Your task to perform on an android device: Search for the best rated headphones on Amazon. Image 0: 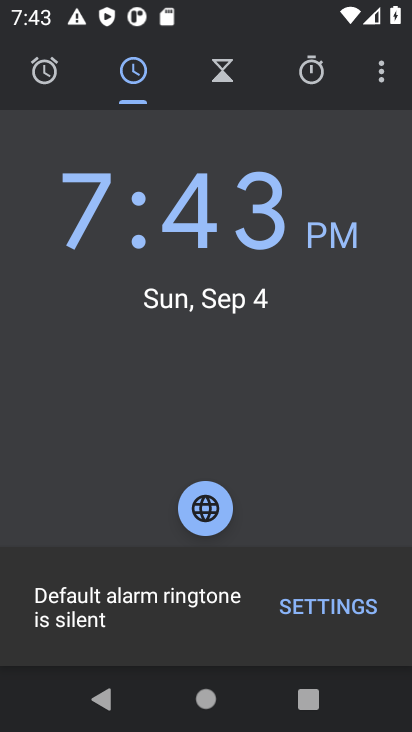
Step 0: press home button
Your task to perform on an android device: Search for the best rated headphones on Amazon. Image 1: 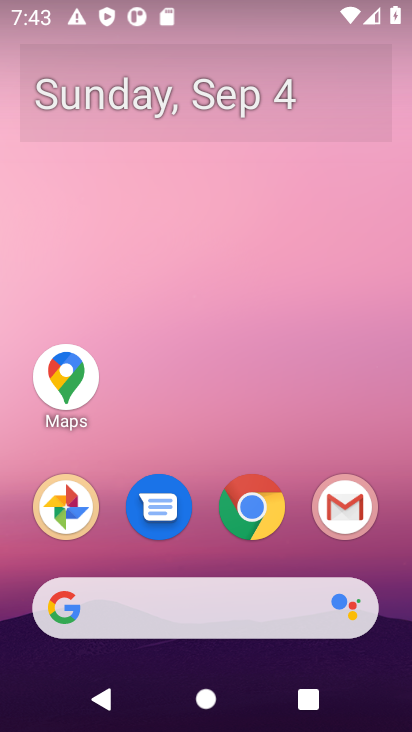
Step 1: click (273, 503)
Your task to perform on an android device: Search for the best rated headphones on Amazon. Image 2: 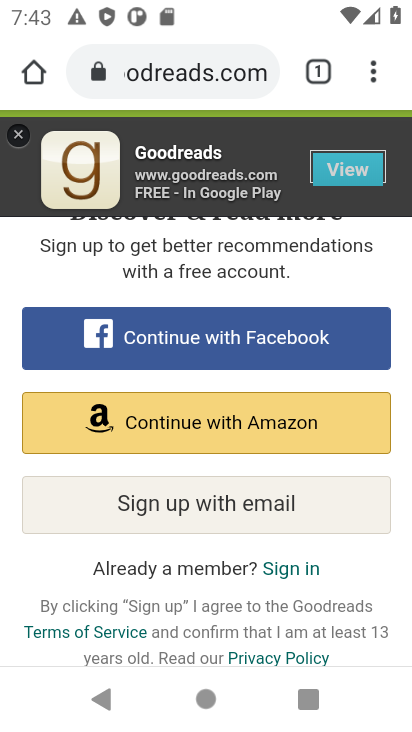
Step 2: click (196, 66)
Your task to perform on an android device: Search for the best rated headphones on Amazon. Image 3: 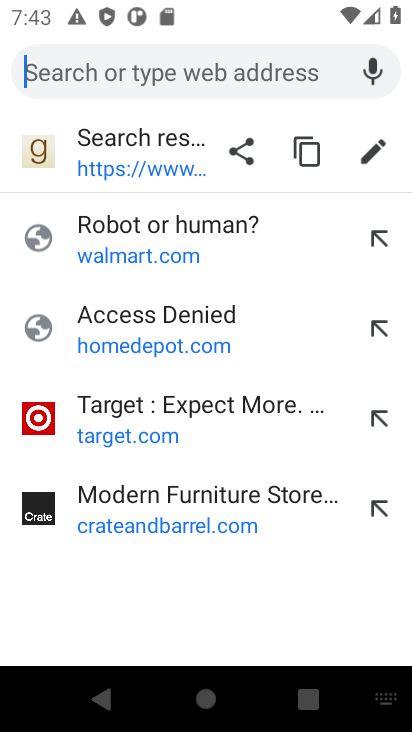
Step 3: type "amazon"
Your task to perform on an android device: Search for the best rated headphones on Amazon. Image 4: 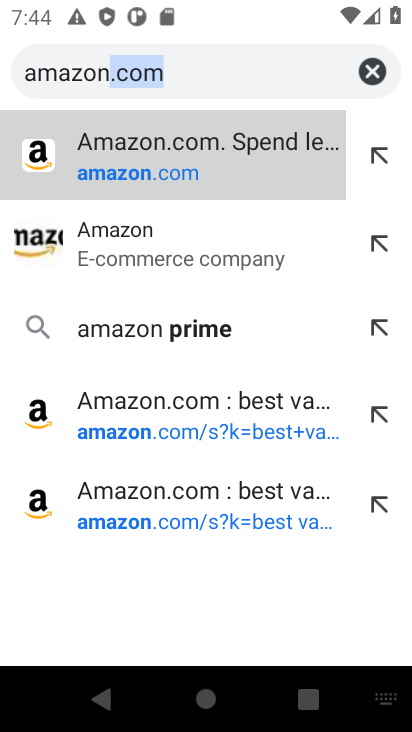
Step 4: click (169, 149)
Your task to perform on an android device: Search for the best rated headphones on Amazon. Image 5: 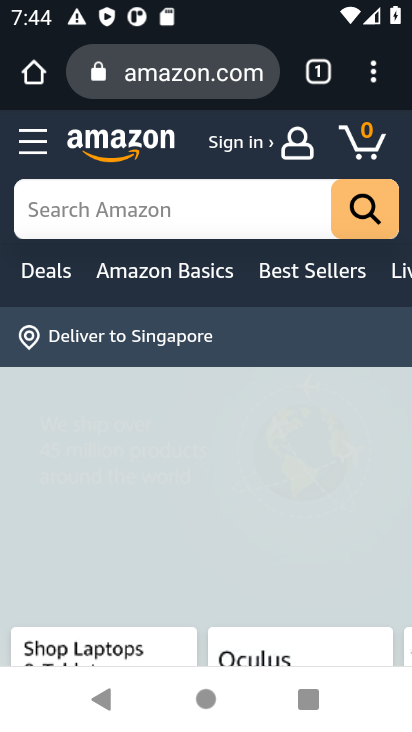
Step 5: click (203, 206)
Your task to perform on an android device: Search for the best rated headphones on Amazon. Image 6: 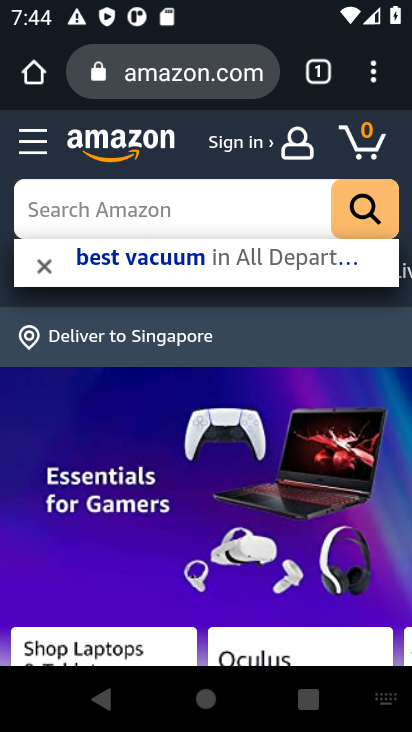
Step 6: type "best rated headphones"
Your task to perform on an android device: Search for the best rated headphones on Amazon. Image 7: 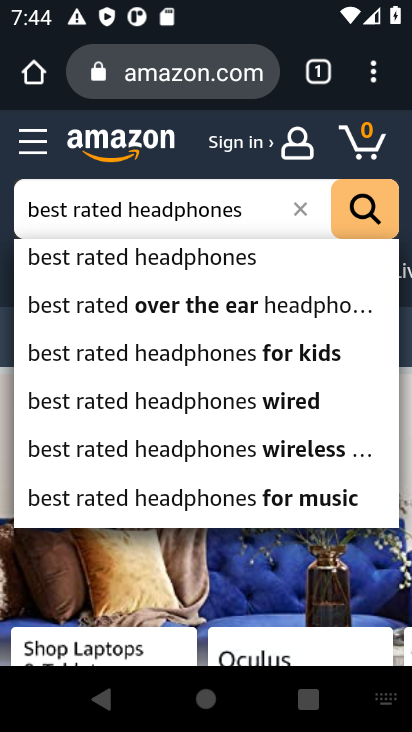
Step 7: click (215, 255)
Your task to perform on an android device: Search for the best rated headphones on Amazon. Image 8: 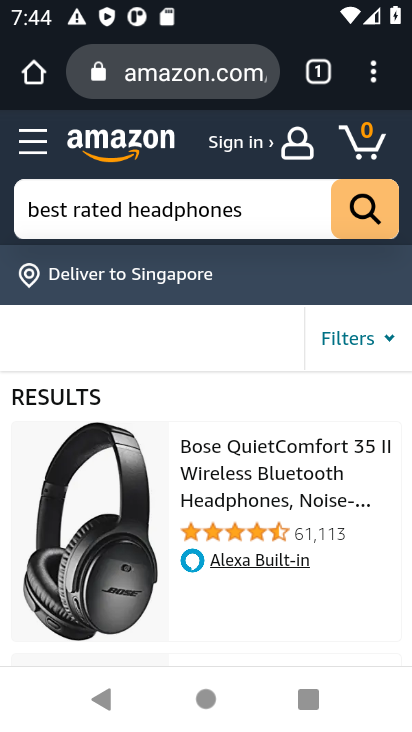
Step 8: task complete